Your task to perform on an android device: make emails show in primary in the gmail app Image 0: 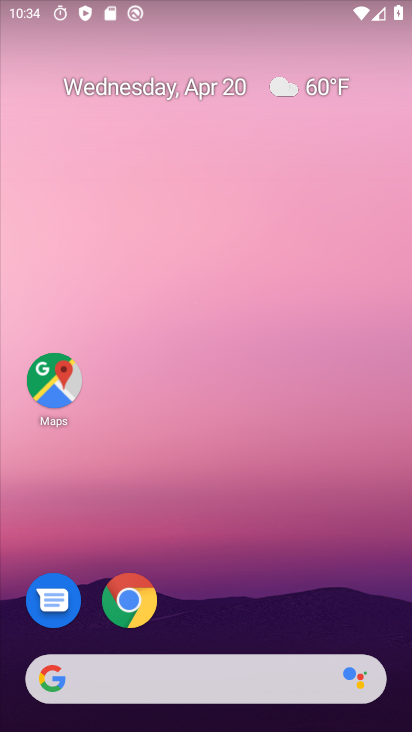
Step 0: drag from (208, 621) to (182, 37)
Your task to perform on an android device: make emails show in primary in the gmail app Image 1: 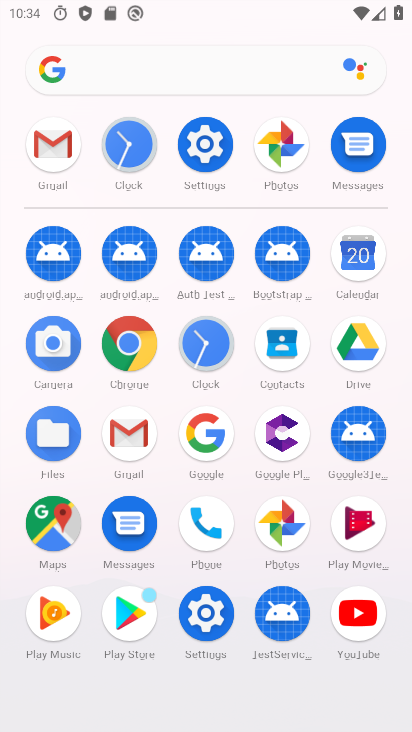
Step 1: click (62, 169)
Your task to perform on an android device: make emails show in primary in the gmail app Image 2: 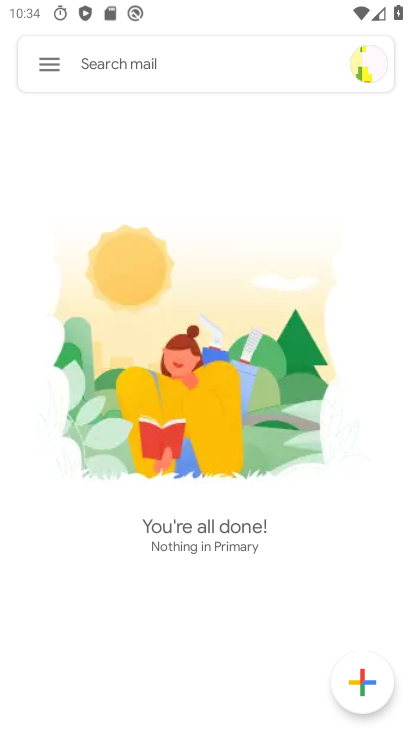
Step 2: click (56, 63)
Your task to perform on an android device: make emails show in primary in the gmail app Image 3: 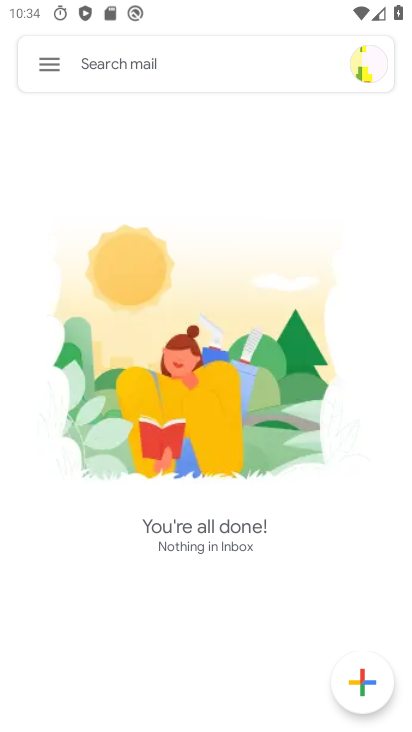
Step 3: click (56, 63)
Your task to perform on an android device: make emails show in primary in the gmail app Image 4: 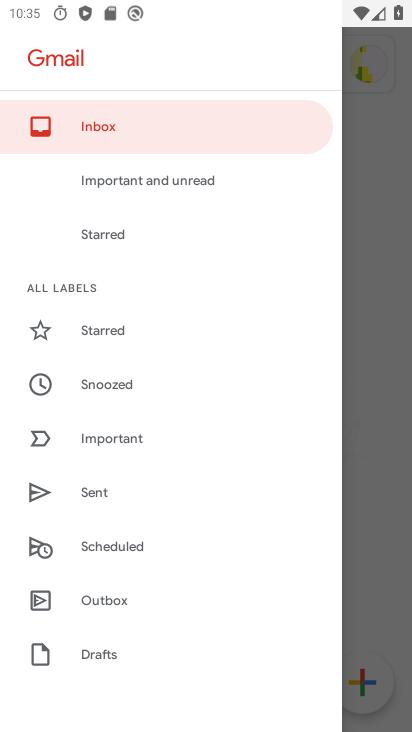
Step 4: task complete